Your task to perform on an android device: Go to Maps Image 0: 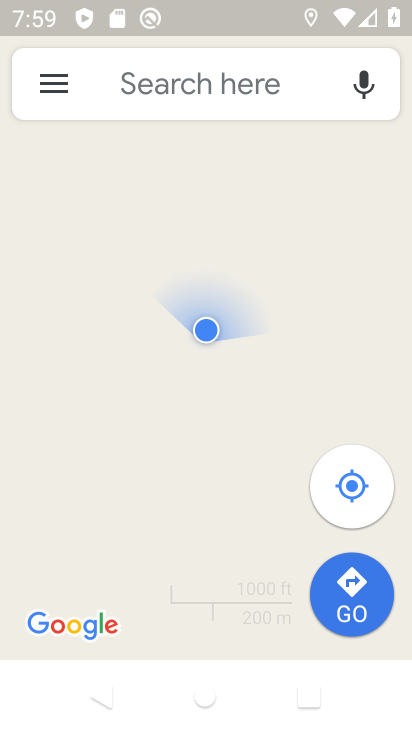
Step 0: press home button
Your task to perform on an android device: Go to Maps Image 1: 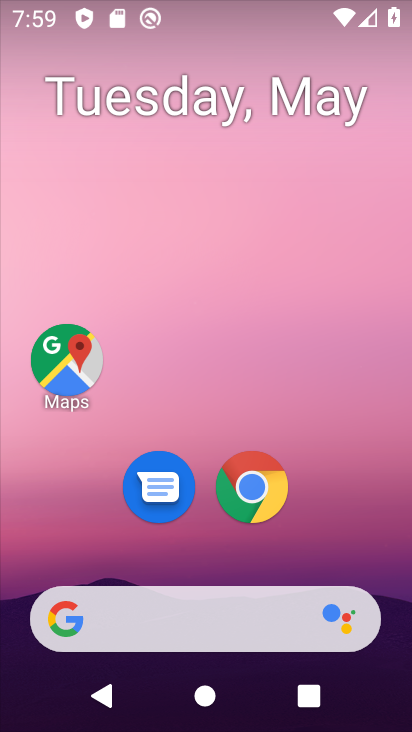
Step 1: click (68, 363)
Your task to perform on an android device: Go to Maps Image 2: 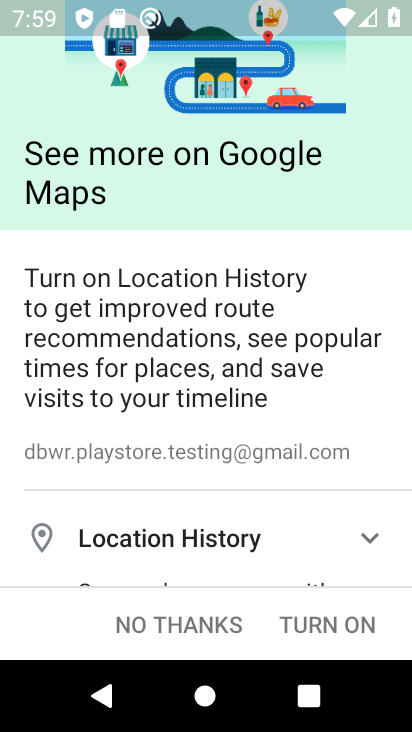
Step 2: click (223, 612)
Your task to perform on an android device: Go to Maps Image 3: 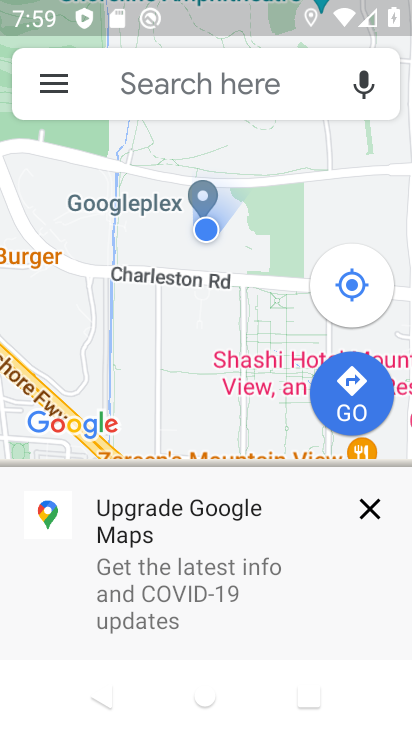
Step 3: task complete